Your task to perform on an android device: turn off priority inbox in the gmail app Image 0: 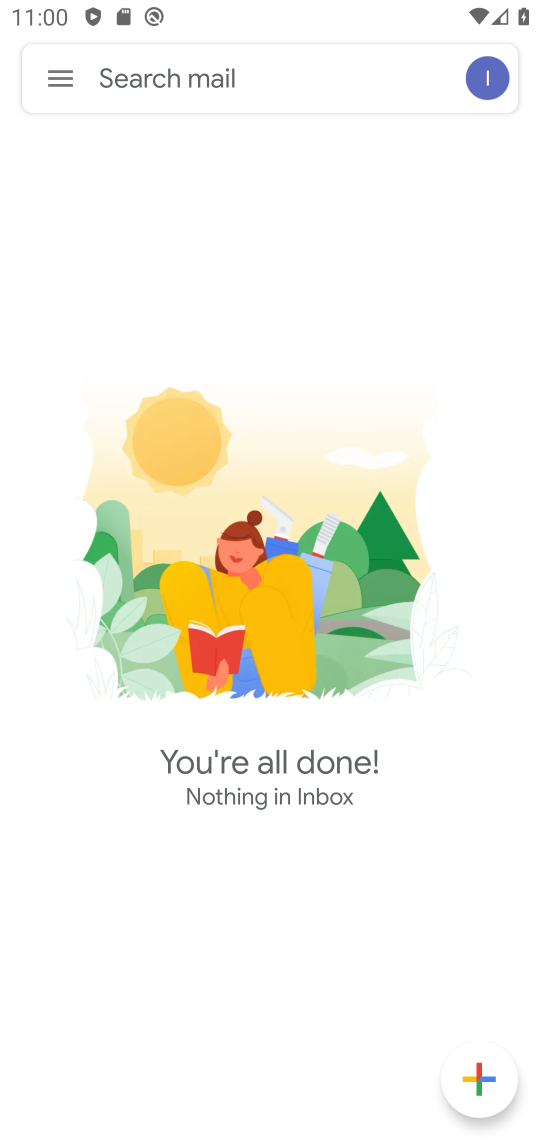
Step 0: click (71, 69)
Your task to perform on an android device: turn off priority inbox in the gmail app Image 1: 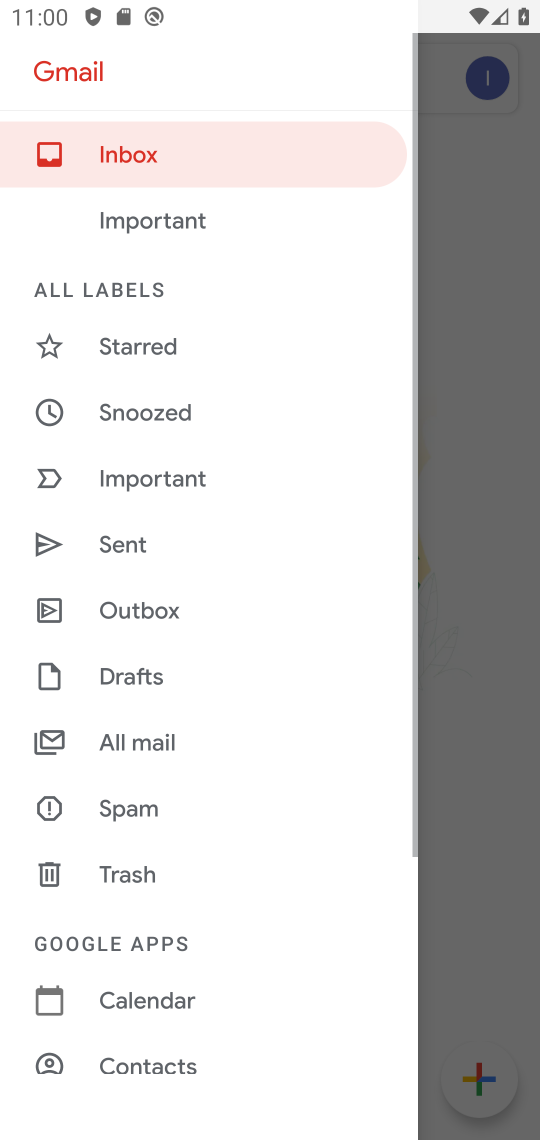
Step 1: drag from (143, 928) to (158, 17)
Your task to perform on an android device: turn off priority inbox in the gmail app Image 2: 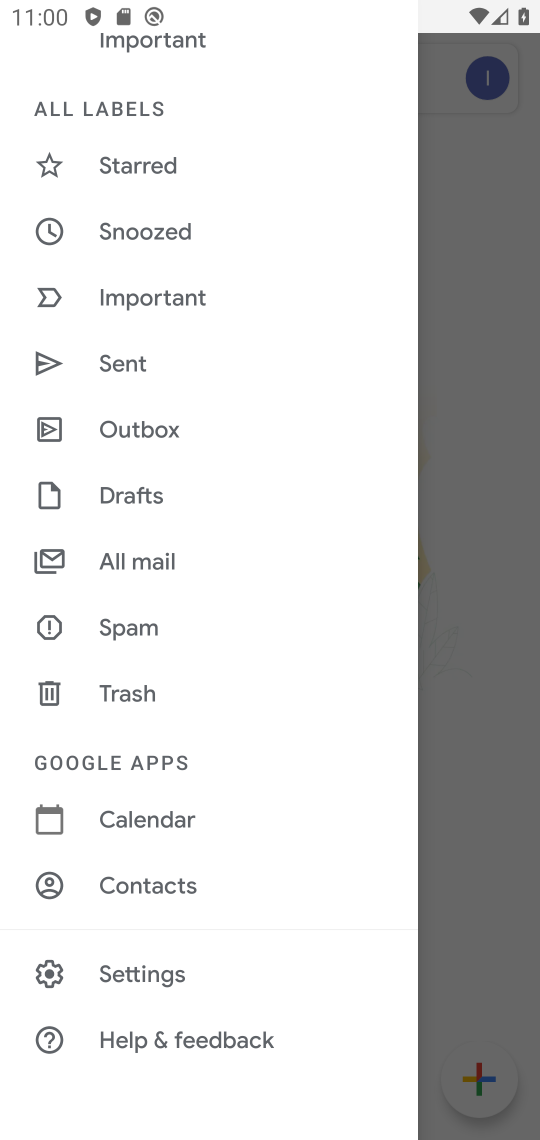
Step 2: click (163, 967)
Your task to perform on an android device: turn off priority inbox in the gmail app Image 3: 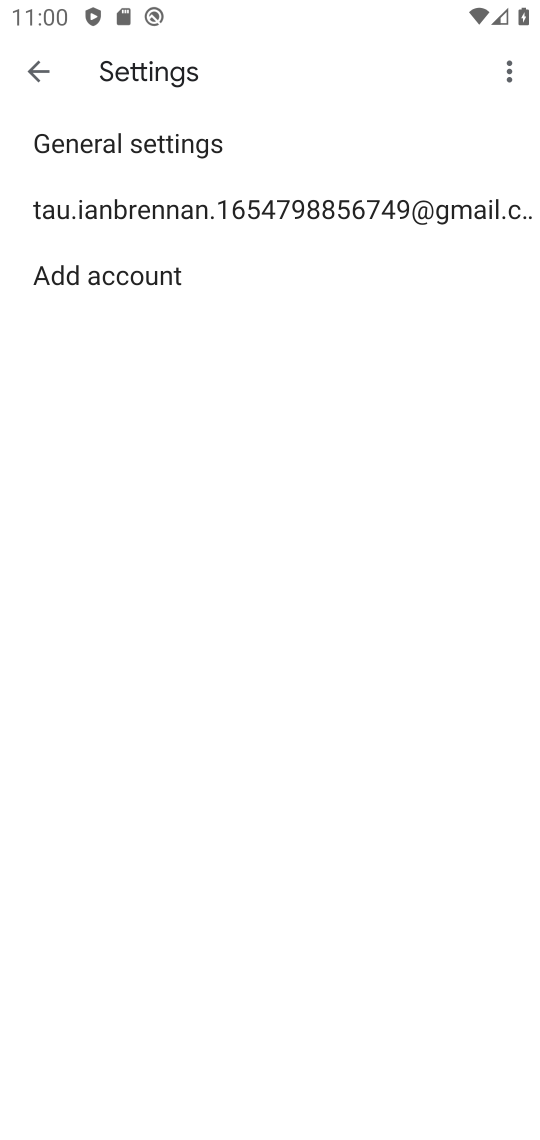
Step 3: click (170, 190)
Your task to perform on an android device: turn off priority inbox in the gmail app Image 4: 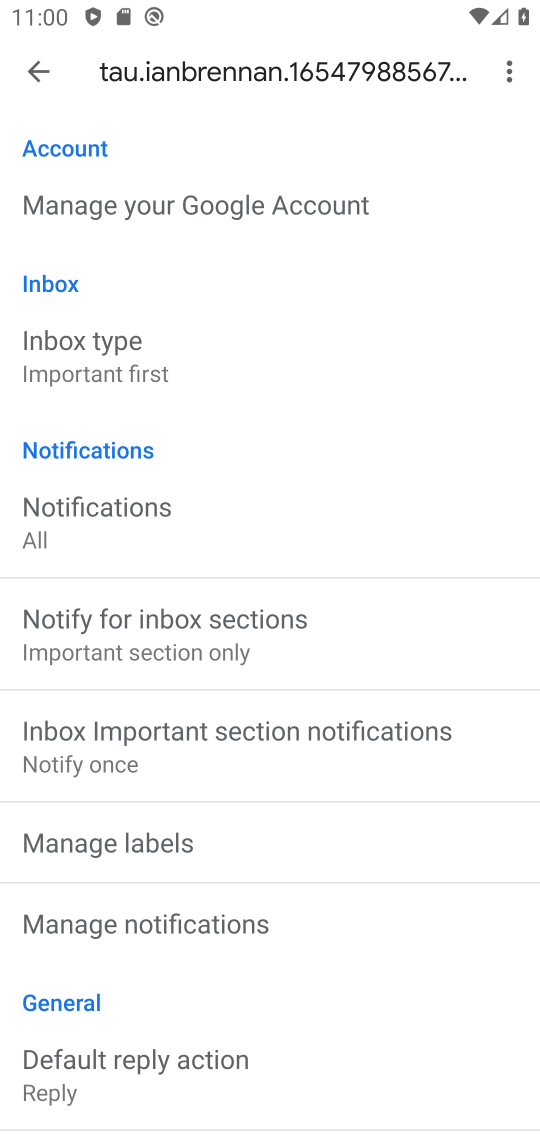
Step 4: click (147, 365)
Your task to perform on an android device: turn off priority inbox in the gmail app Image 5: 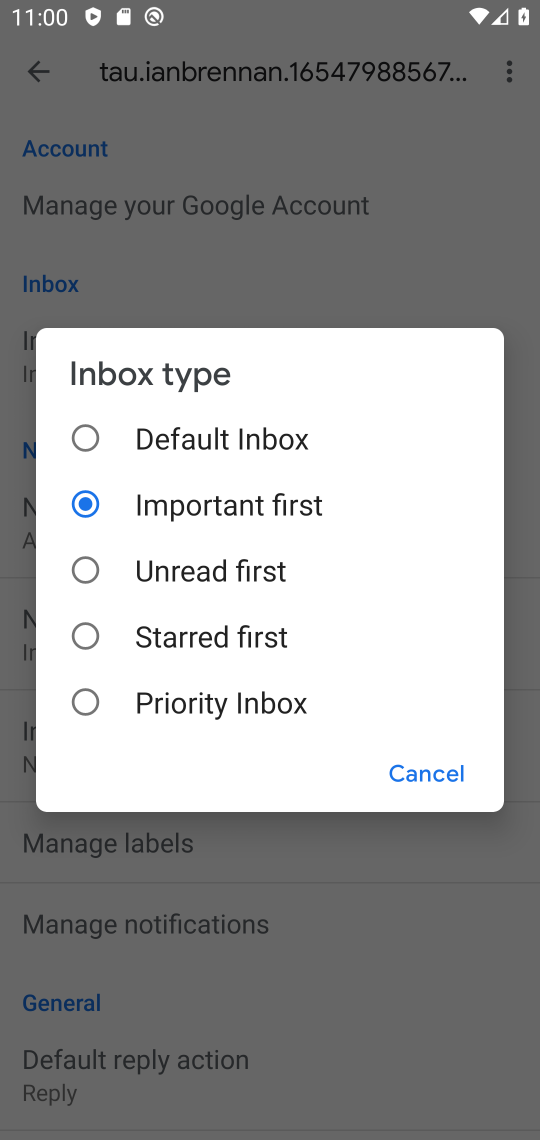
Step 5: click (197, 443)
Your task to perform on an android device: turn off priority inbox in the gmail app Image 6: 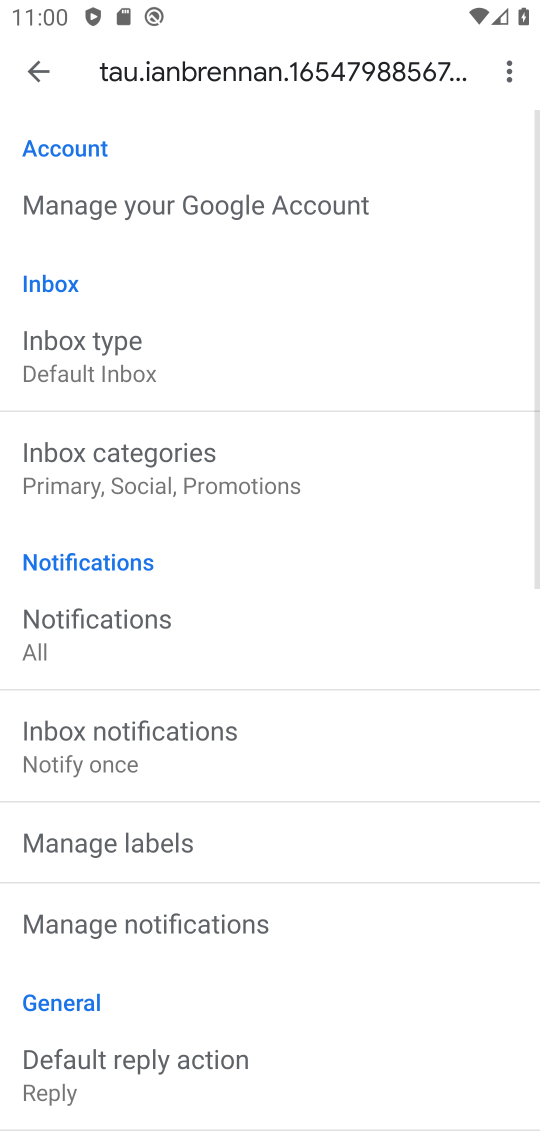
Step 6: task complete